Your task to perform on an android device: Open Wikipedia Image 0: 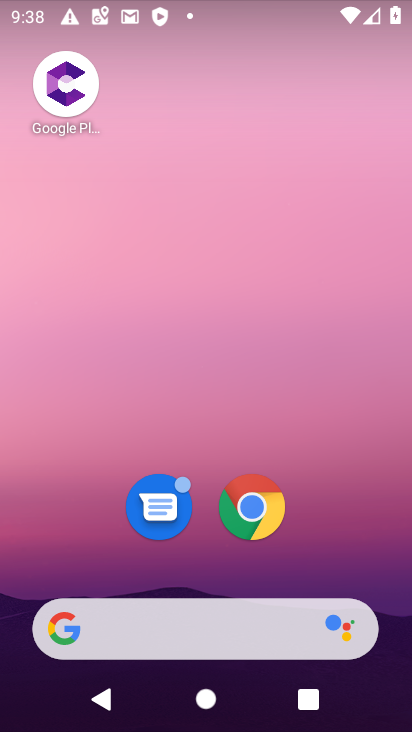
Step 0: click (236, 494)
Your task to perform on an android device: Open Wikipedia Image 1: 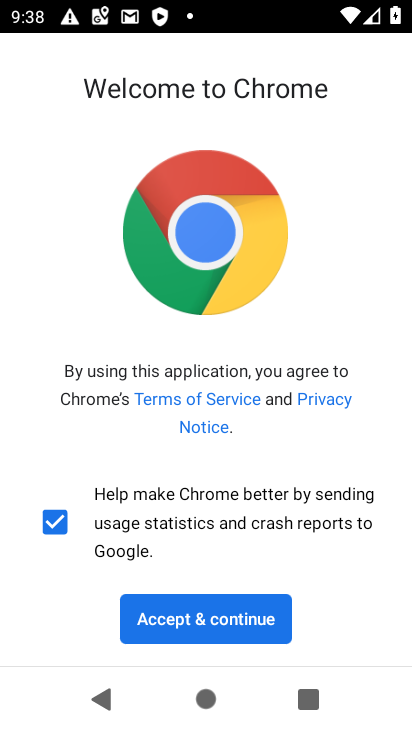
Step 1: click (217, 618)
Your task to perform on an android device: Open Wikipedia Image 2: 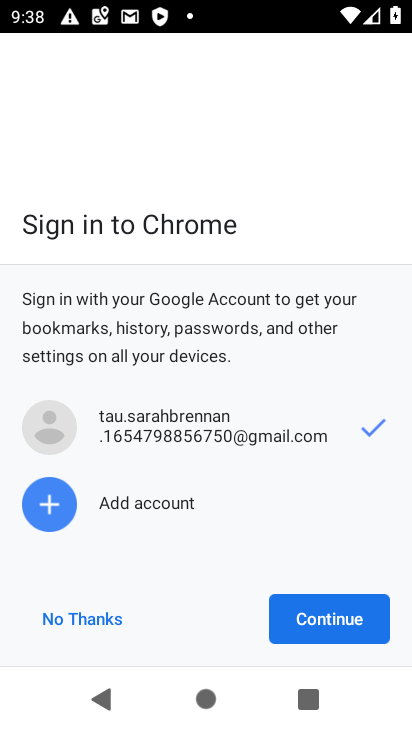
Step 2: click (338, 608)
Your task to perform on an android device: Open Wikipedia Image 3: 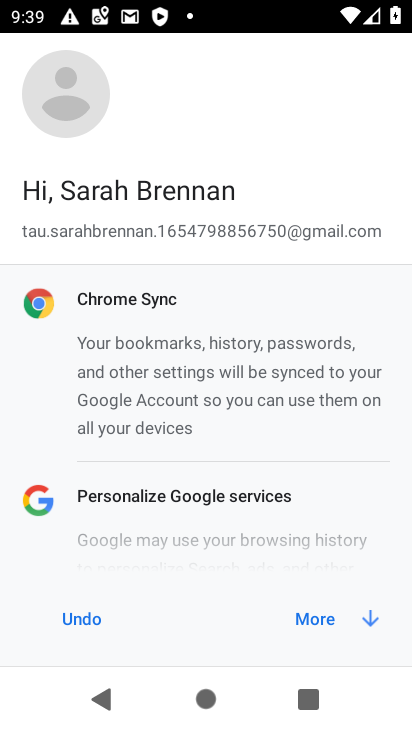
Step 3: click (334, 611)
Your task to perform on an android device: Open Wikipedia Image 4: 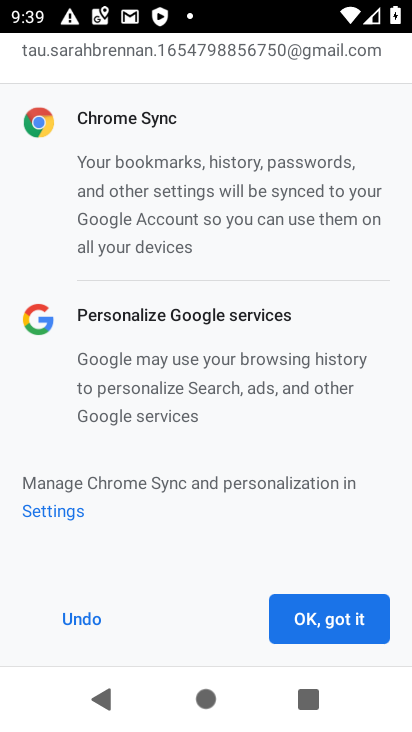
Step 4: click (334, 611)
Your task to perform on an android device: Open Wikipedia Image 5: 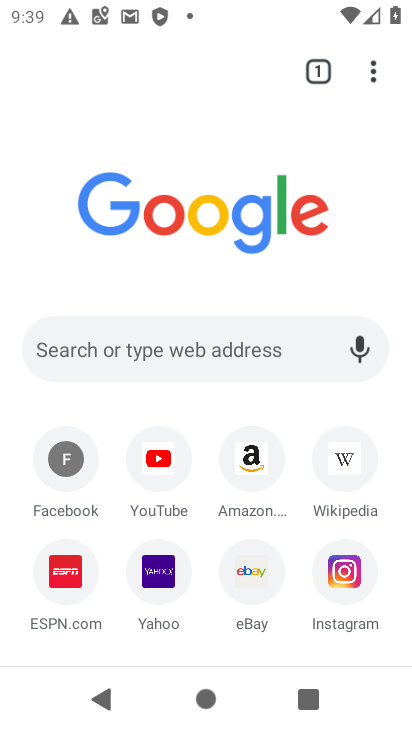
Step 5: click (354, 463)
Your task to perform on an android device: Open Wikipedia Image 6: 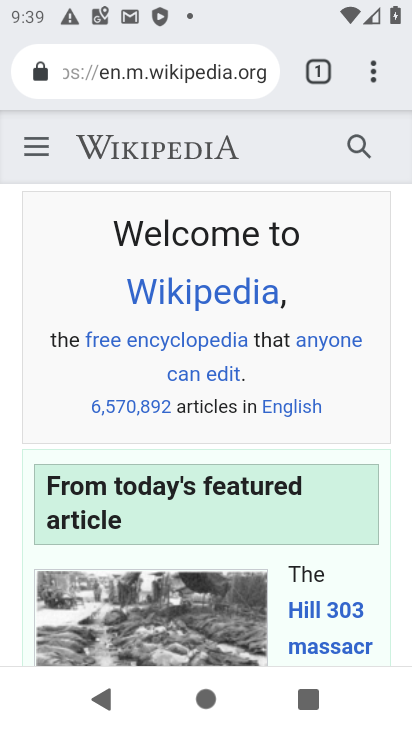
Step 6: task complete